Your task to perform on an android device: What's the weather going to be tomorrow? Image 0: 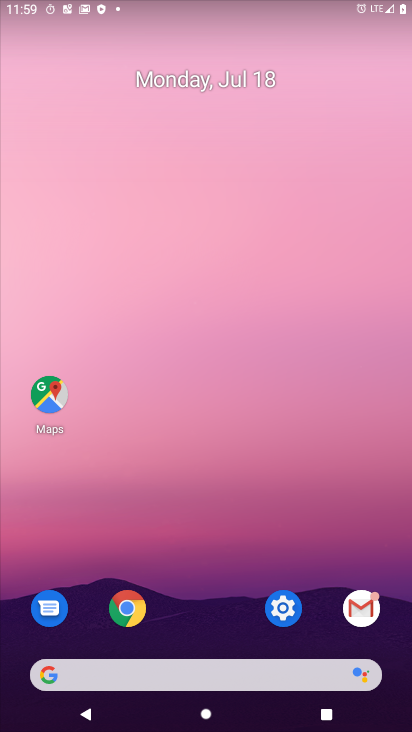
Step 0: click (187, 670)
Your task to perform on an android device: What's the weather going to be tomorrow? Image 1: 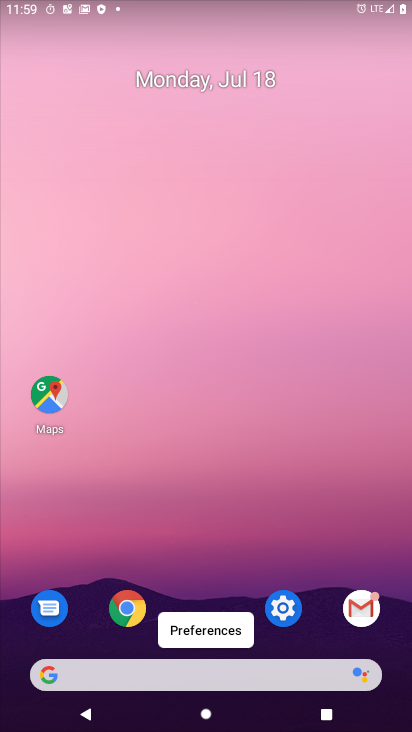
Step 1: click (129, 677)
Your task to perform on an android device: What's the weather going to be tomorrow? Image 2: 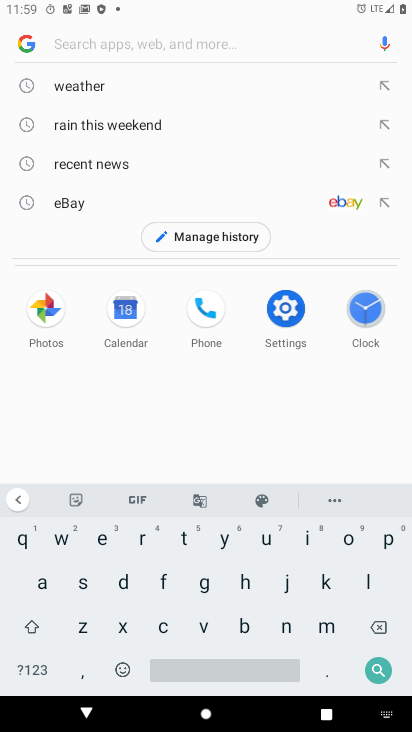
Step 2: click (98, 79)
Your task to perform on an android device: What's the weather going to be tomorrow? Image 3: 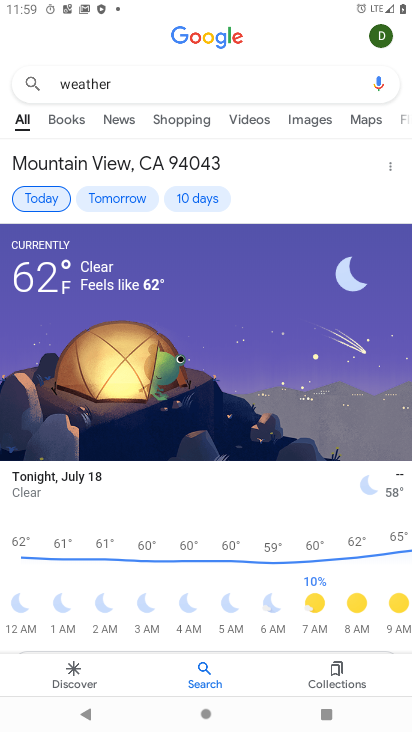
Step 3: click (118, 193)
Your task to perform on an android device: What's the weather going to be tomorrow? Image 4: 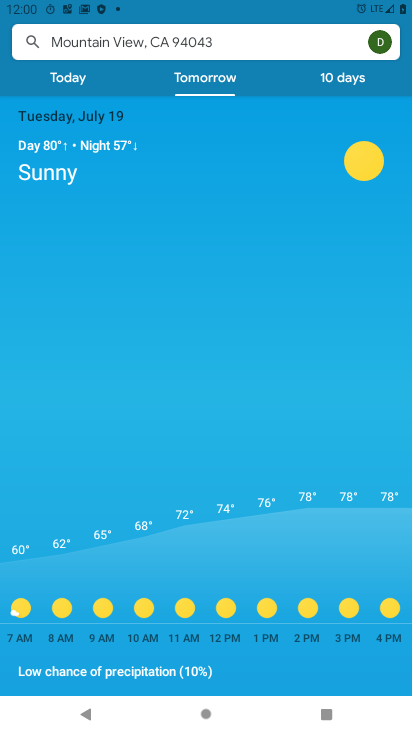
Step 4: task complete